Your task to perform on an android device: Open the web browser Image 0: 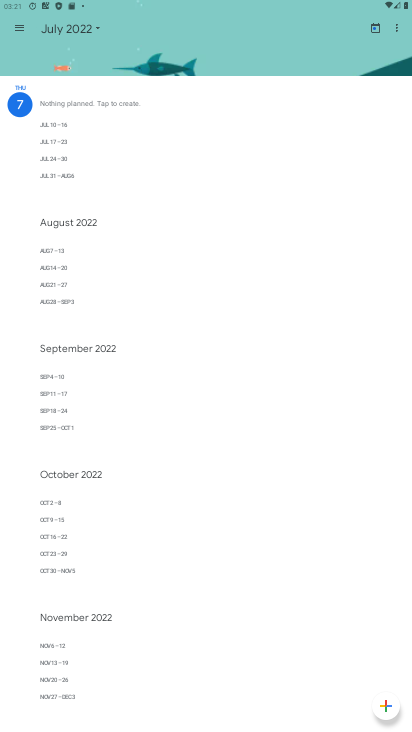
Step 0: press home button
Your task to perform on an android device: Open the web browser Image 1: 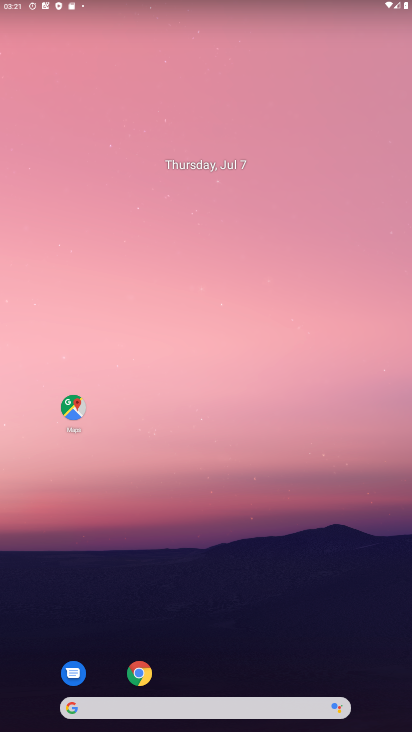
Step 1: drag from (214, 673) to (221, 185)
Your task to perform on an android device: Open the web browser Image 2: 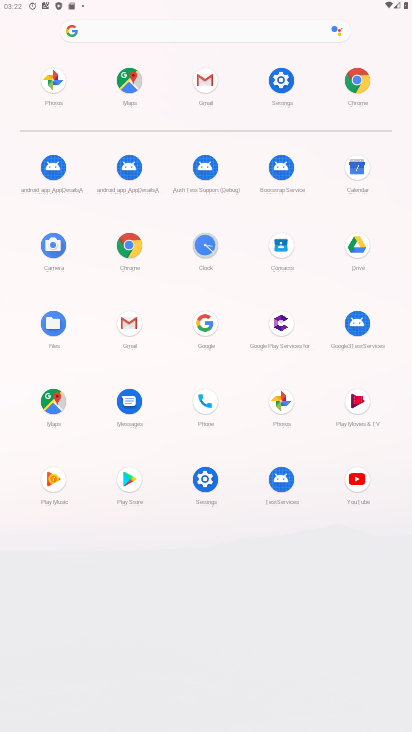
Step 2: click (350, 91)
Your task to perform on an android device: Open the web browser Image 3: 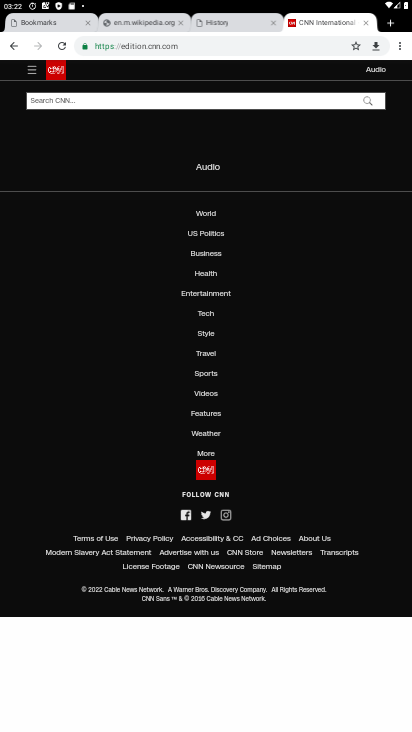
Step 3: task complete